Your task to perform on an android device: make emails show in primary in the gmail app Image 0: 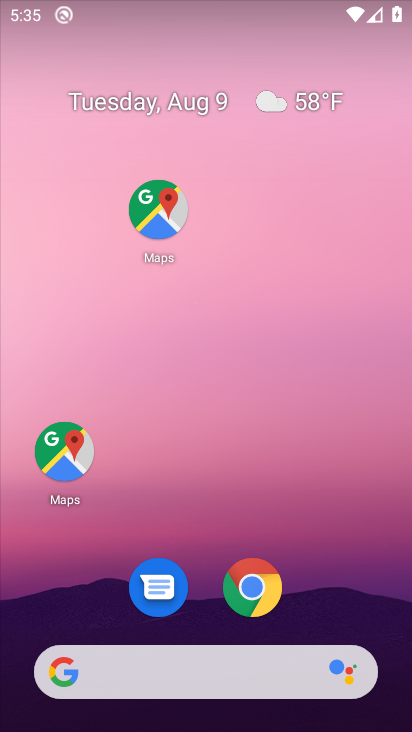
Step 0: drag from (238, 675) to (141, 110)
Your task to perform on an android device: make emails show in primary in the gmail app Image 1: 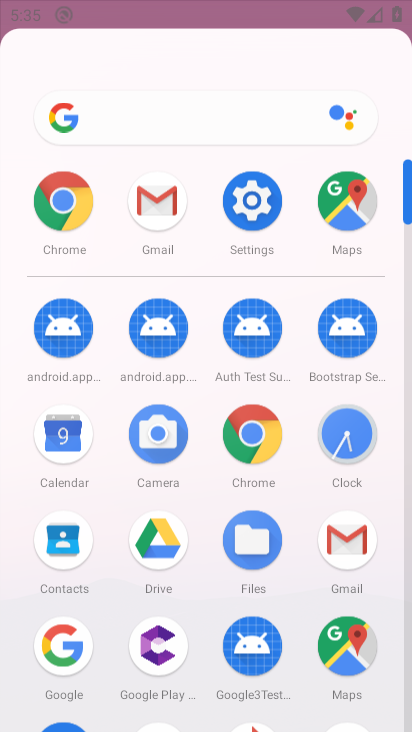
Step 1: drag from (237, 596) to (206, 221)
Your task to perform on an android device: make emails show in primary in the gmail app Image 2: 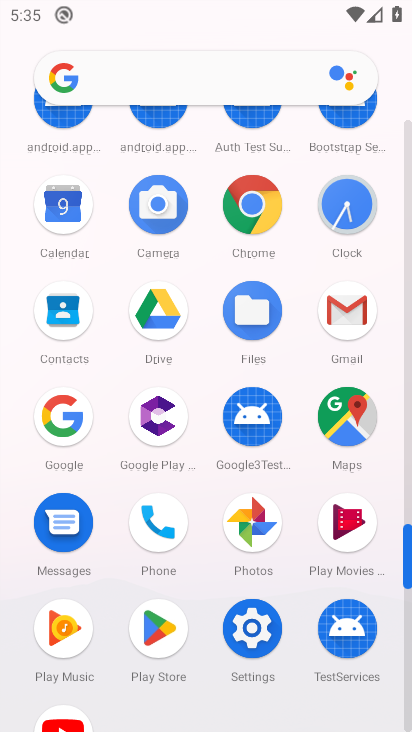
Step 2: drag from (178, 504) to (166, 192)
Your task to perform on an android device: make emails show in primary in the gmail app Image 3: 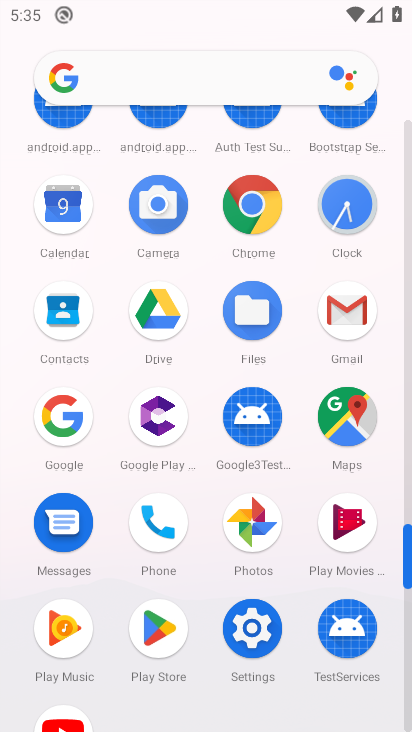
Step 3: click (339, 313)
Your task to perform on an android device: make emails show in primary in the gmail app Image 4: 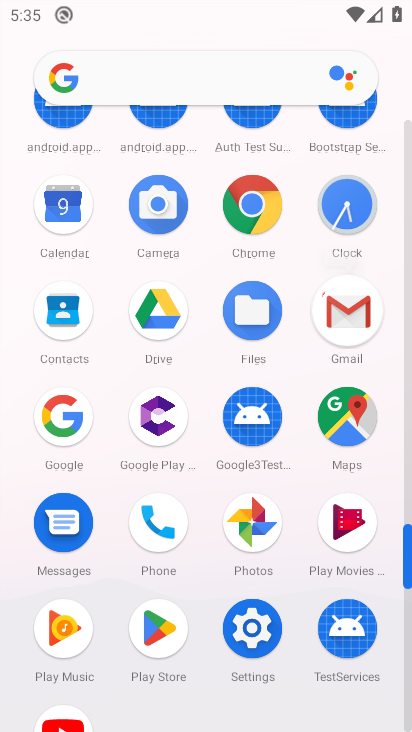
Step 4: click (338, 313)
Your task to perform on an android device: make emails show in primary in the gmail app Image 5: 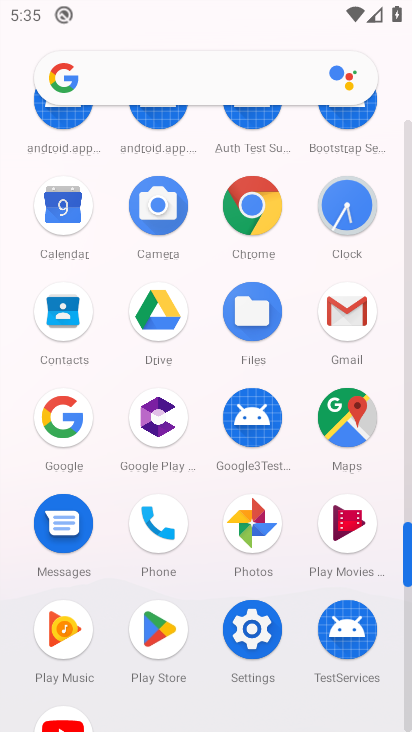
Step 5: click (322, 321)
Your task to perform on an android device: make emails show in primary in the gmail app Image 6: 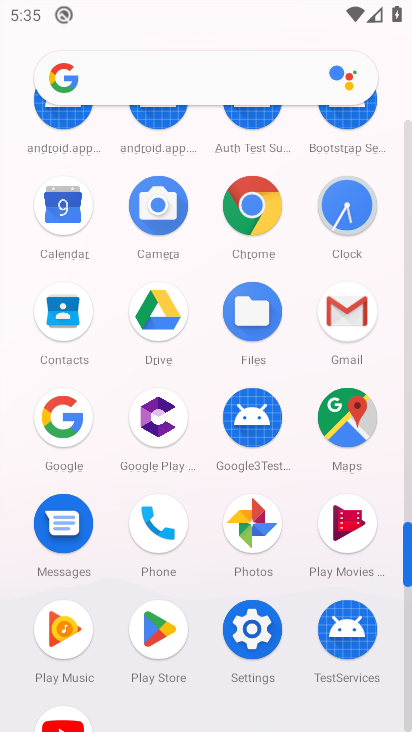
Step 6: click (322, 321)
Your task to perform on an android device: make emails show in primary in the gmail app Image 7: 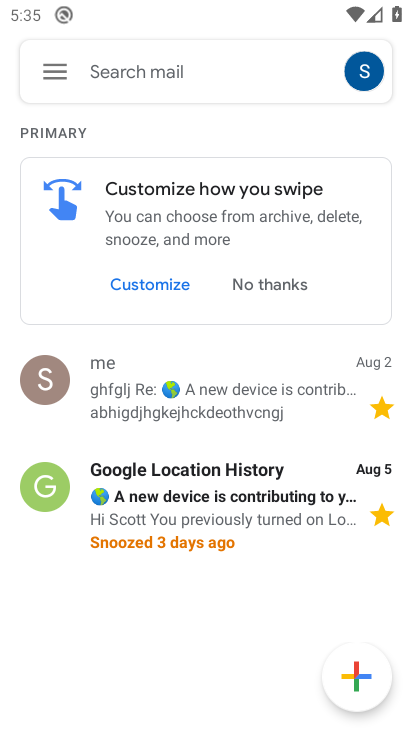
Step 7: click (41, 83)
Your task to perform on an android device: make emails show in primary in the gmail app Image 8: 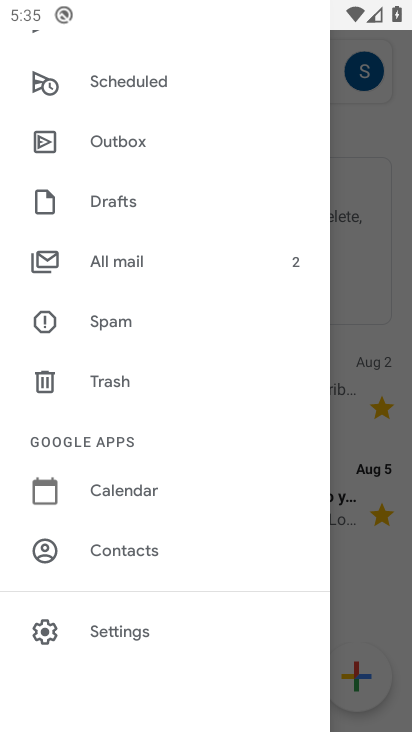
Step 8: click (97, 634)
Your task to perform on an android device: make emails show in primary in the gmail app Image 9: 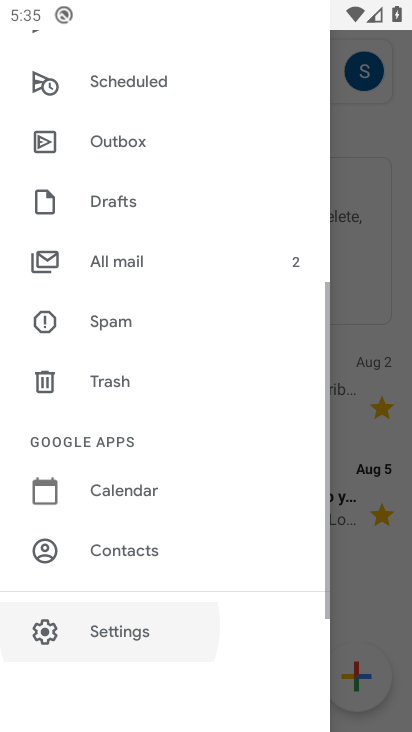
Step 9: click (104, 634)
Your task to perform on an android device: make emails show in primary in the gmail app Image 10: 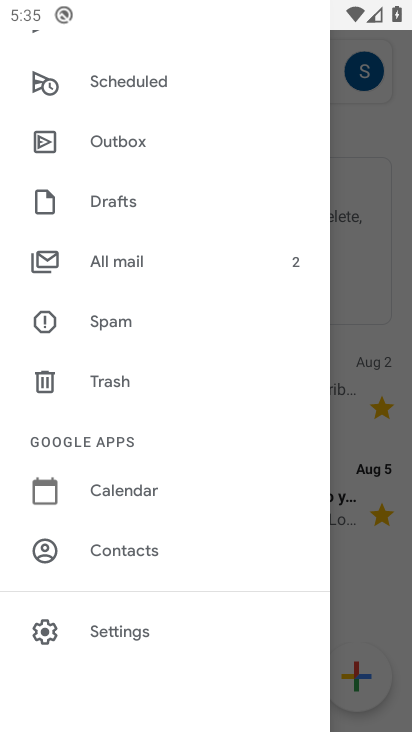
Step 10: click (126, 635)
Your task to perform on an android device: make emails show in primary in the gmail app Image 11: 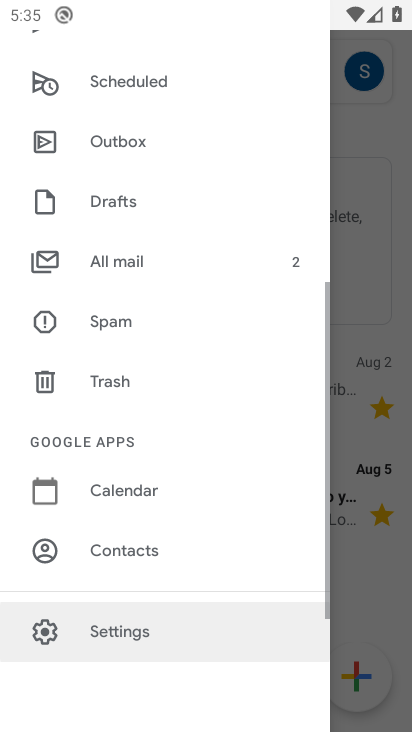
Step 11: click (126, 635)
Your task to perform on an android device: make emails show in primary in the gmail app Image 12: 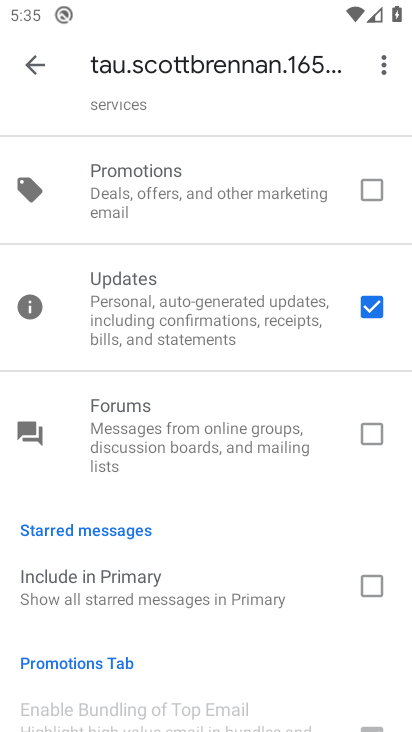
Step 12: click (17, 61)
Your task to perform on an android device: make emails show in primary in the gmail app Image 13: 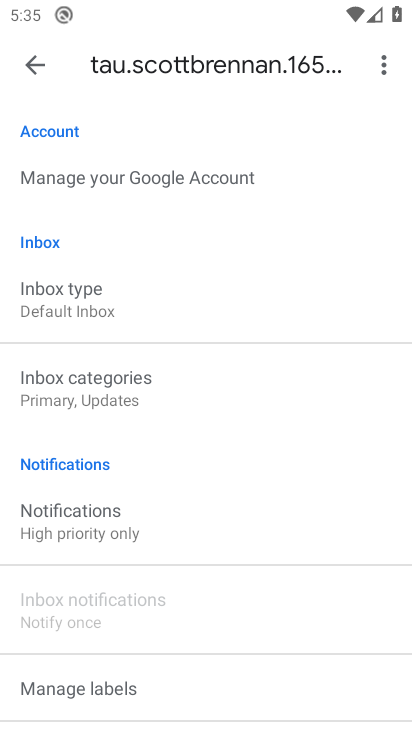
Step 13: task complete